Your task to perform on an android device: toggle improve location accuracy Image 0: 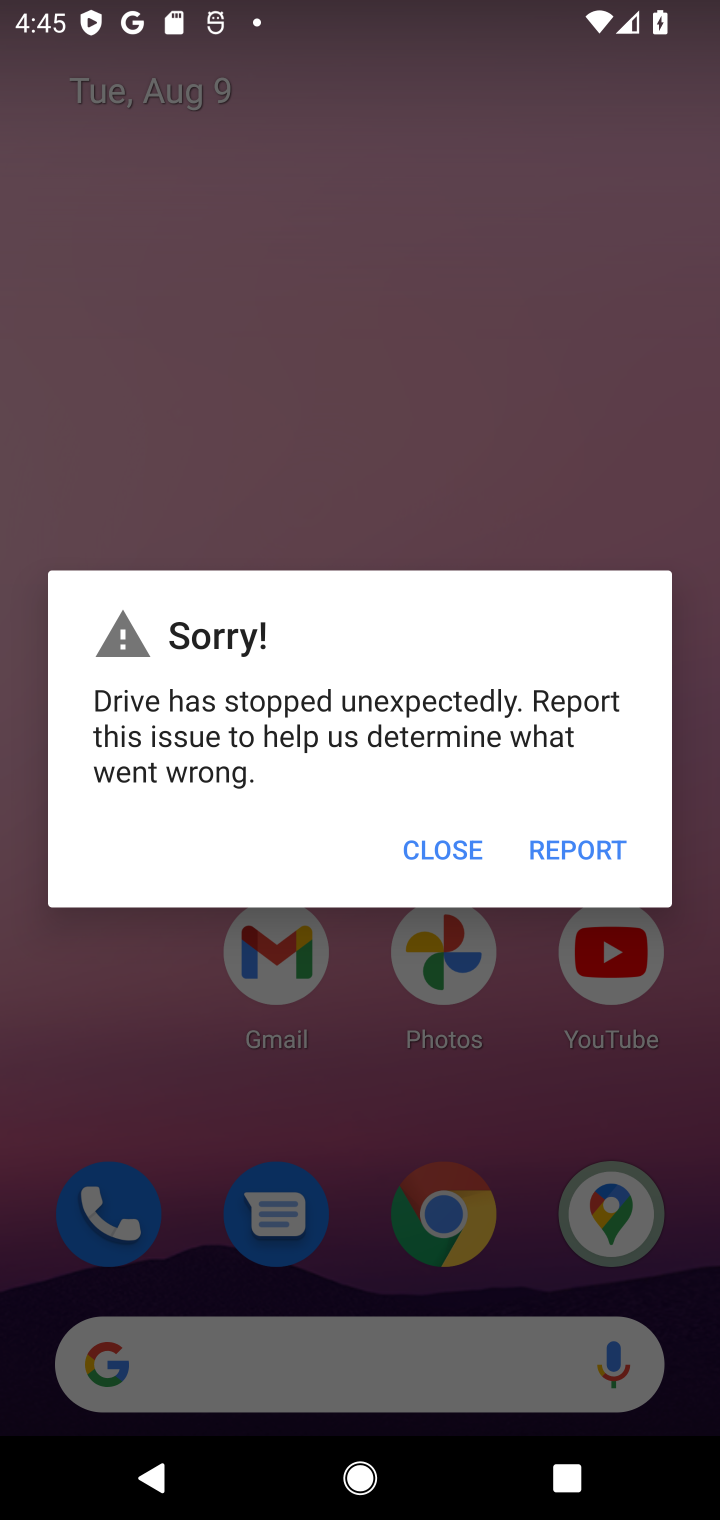
Step 0: press home button
Your task to perform on an android device: toggle improve location accuracy Image 1: 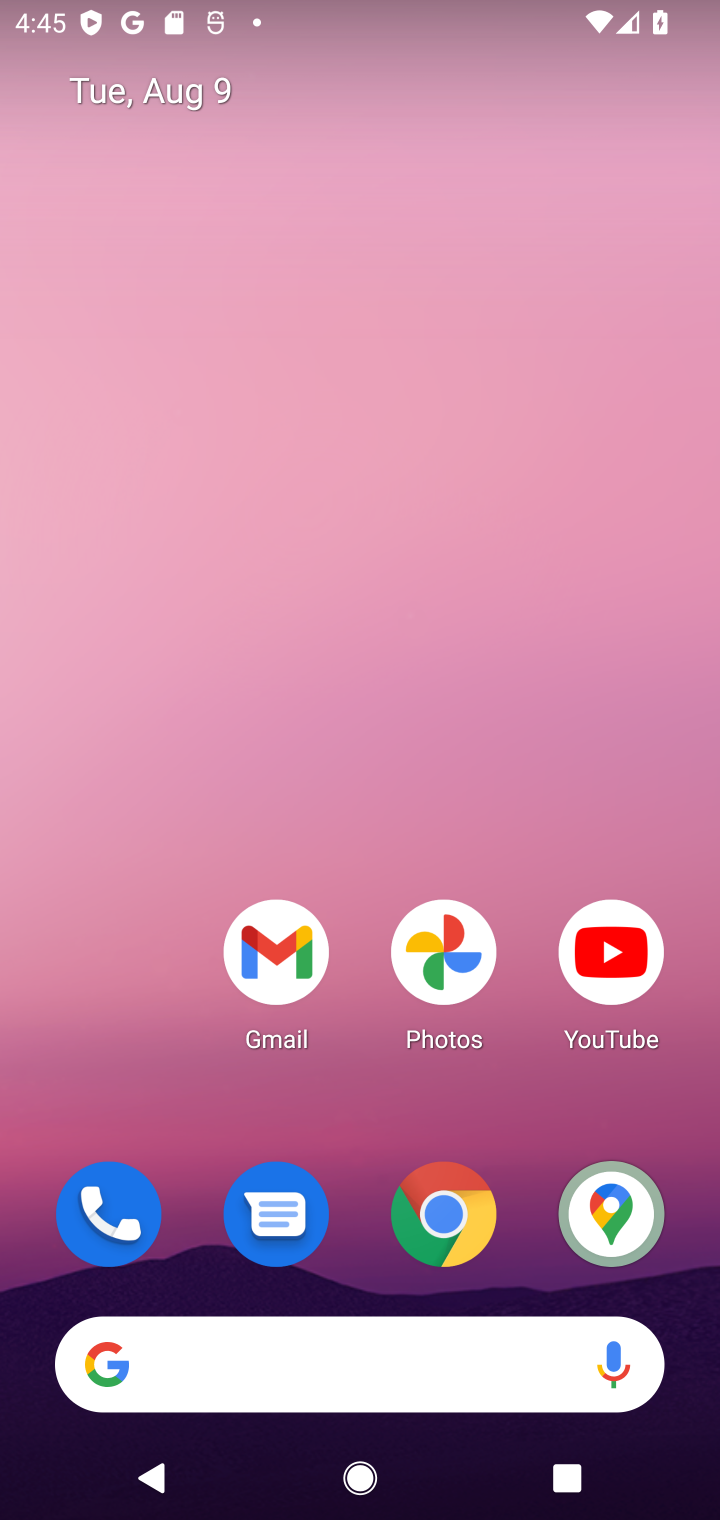
Step 1: drag from (430, 1289) to (341, 376)
Your task to perform on an android device: toggle improve location accuracy Image 2: 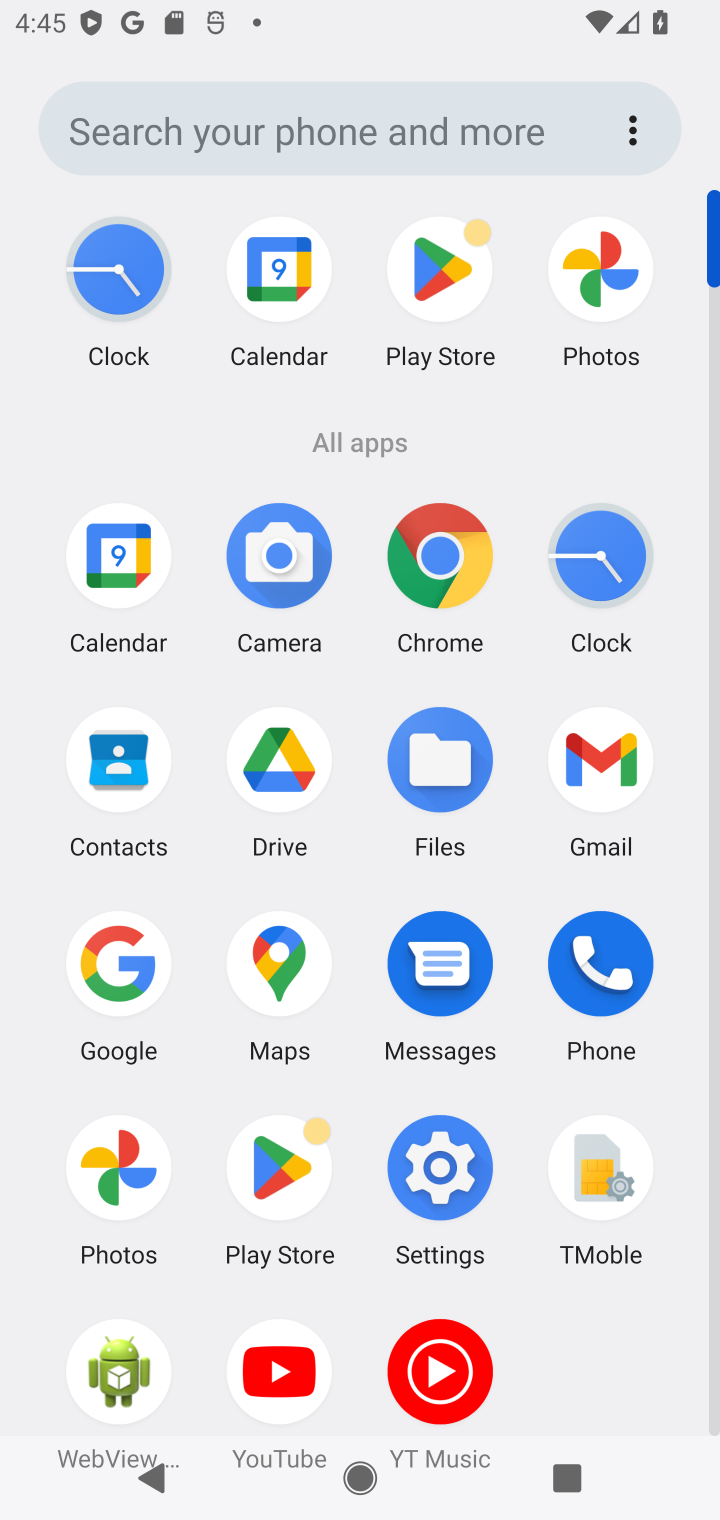
Step 2: click (423, 1164)
Your task to perform on an android device: toggle improve location accuracy Image 3: 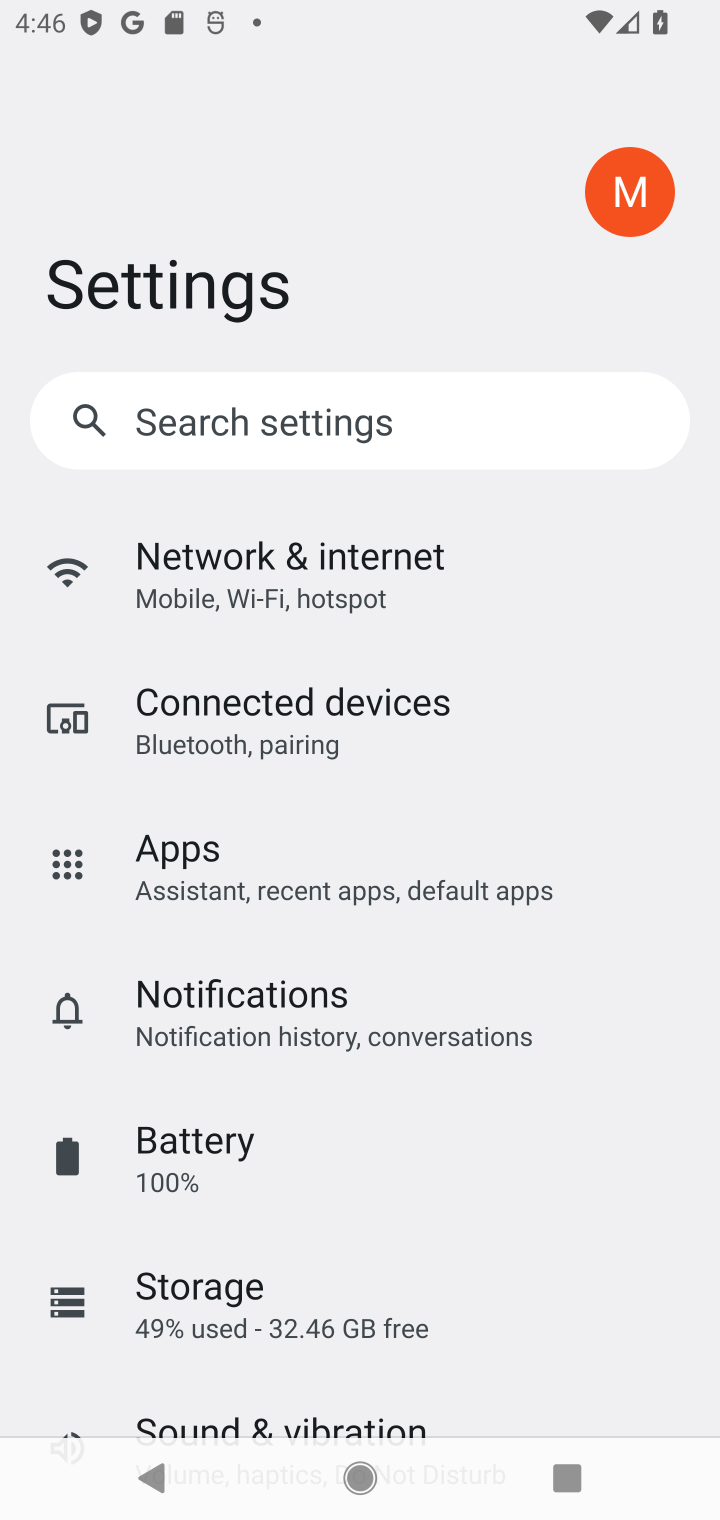
Step 3: click (212, 428)
Your task to perform on an android device: toggle improve location accuracy Image 4: 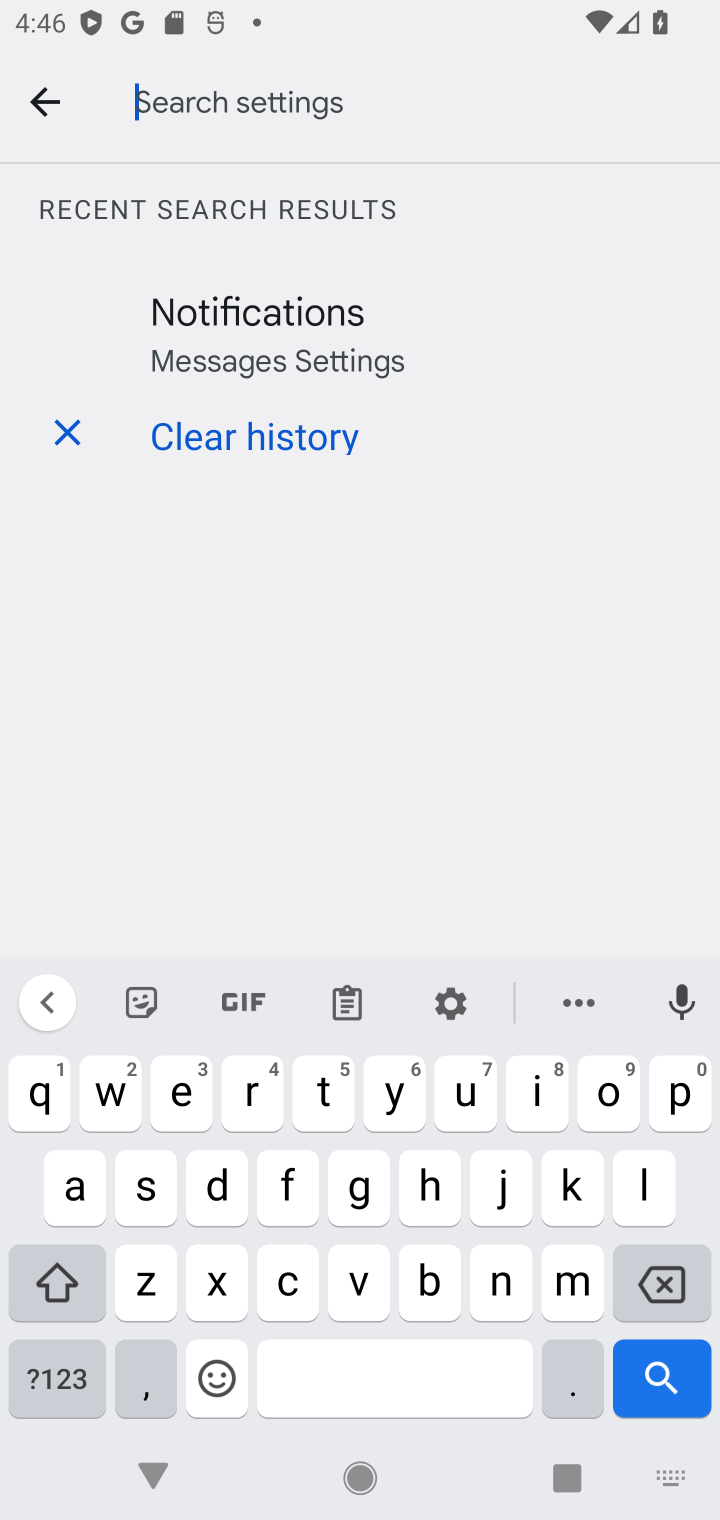
Step 4: click (652, 1187)
Your task to perform on an android device: toggle improve location accuracy Image 5: 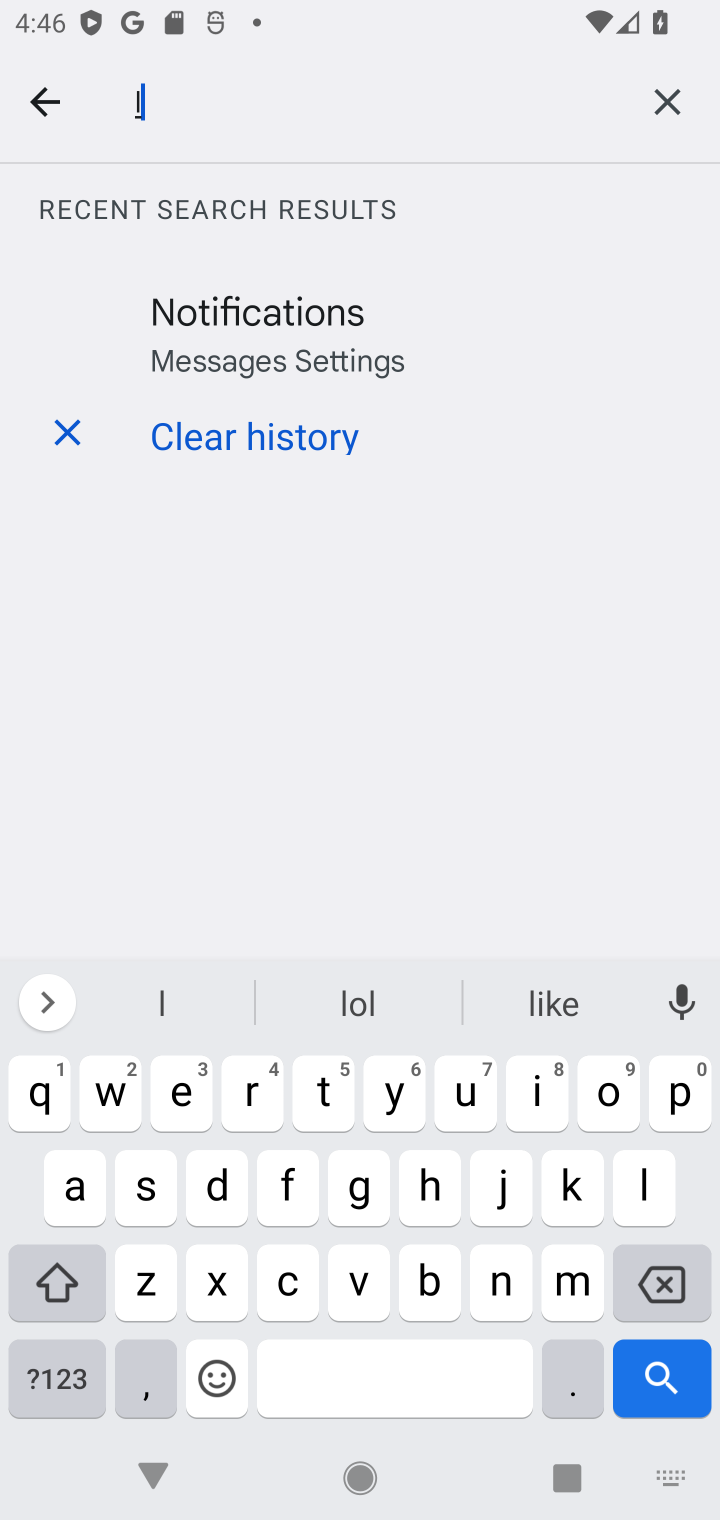
Step 5: click (608, 1099)
Your task to perform on an android device: toggle improve location accuracy Image 6: 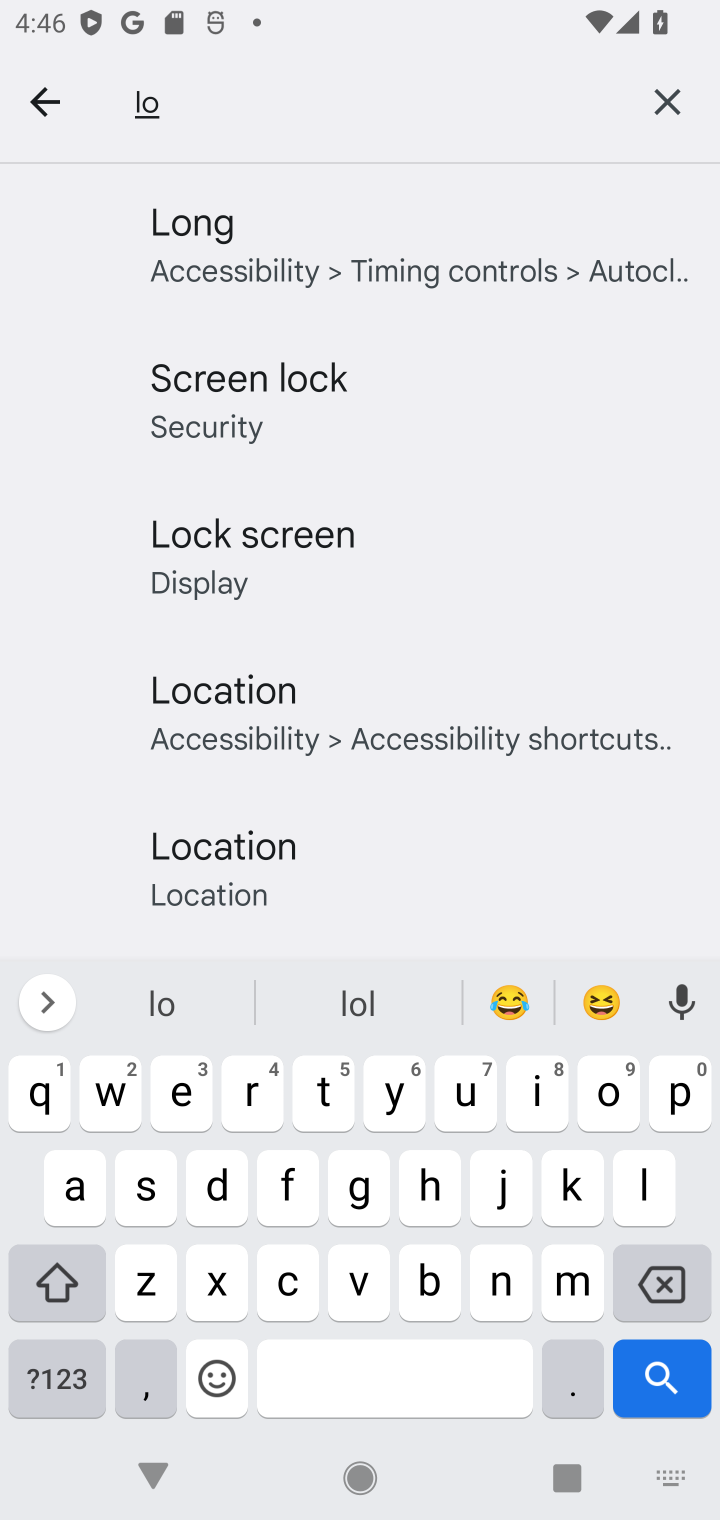
Step 6: click (228, 867)
Your task to perform on an android device: toggle improve location accuracy Image 7: 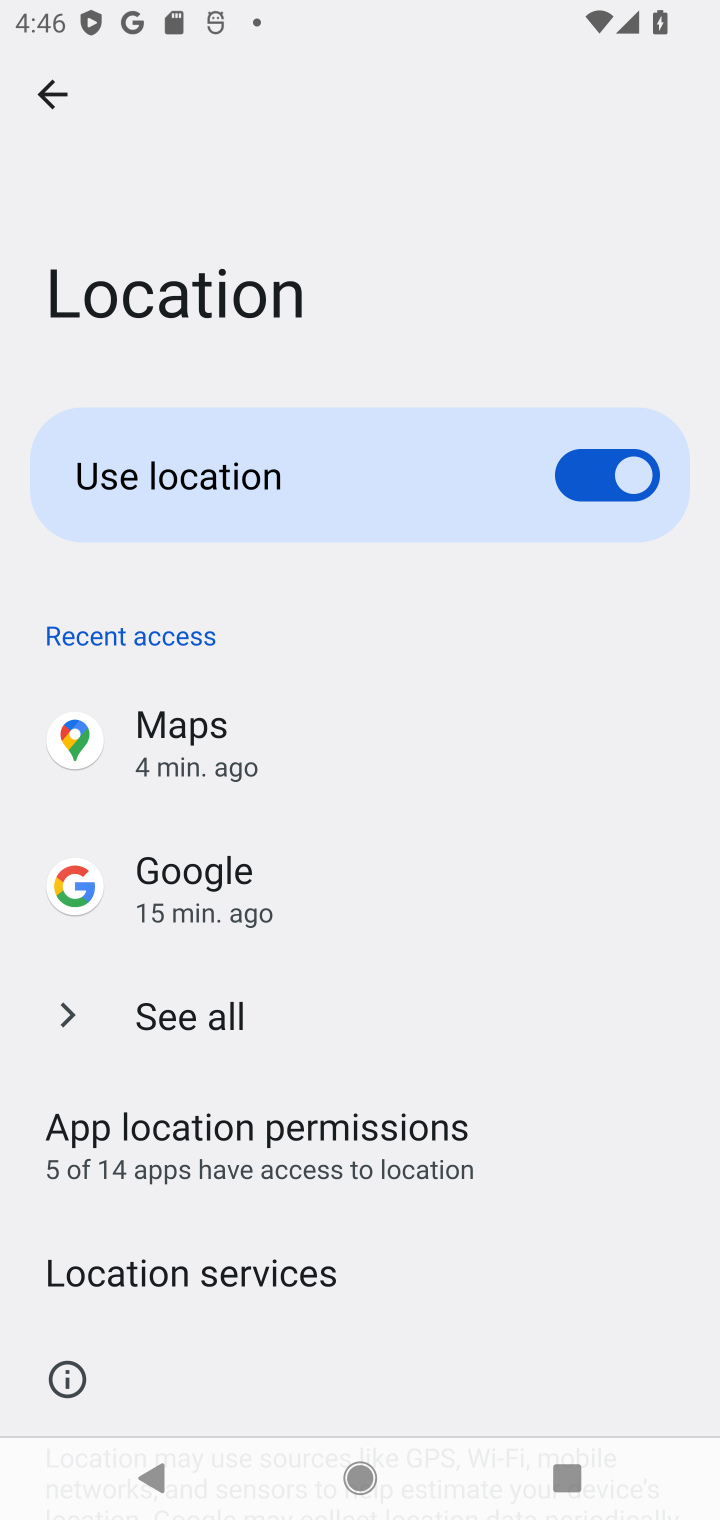
Step 7: click (226, 1285)
Your task to perform on an android device: toggle improve location accuracy Image 8: 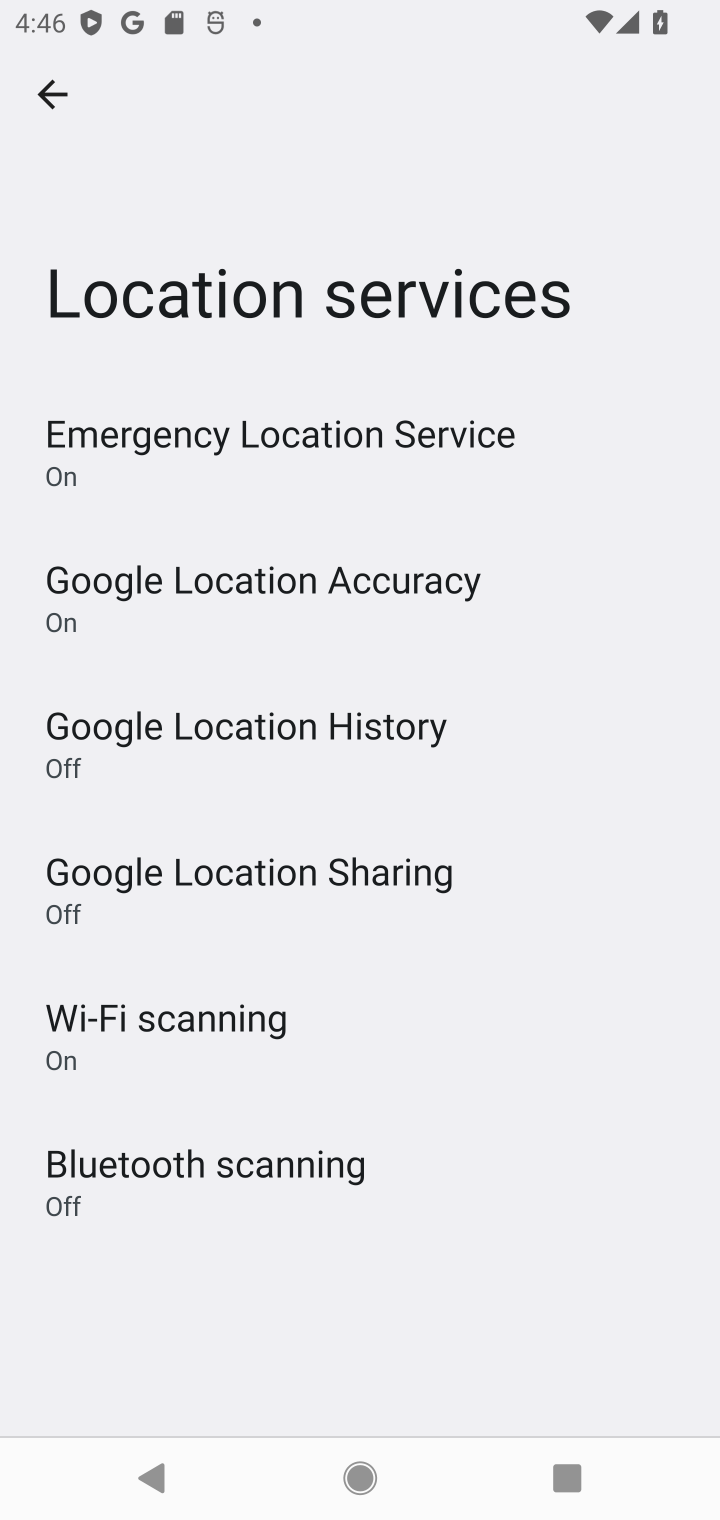
Step 8: click (301, 574)
Your task to perform on an android device: toggle improve location accuracy Image 9: 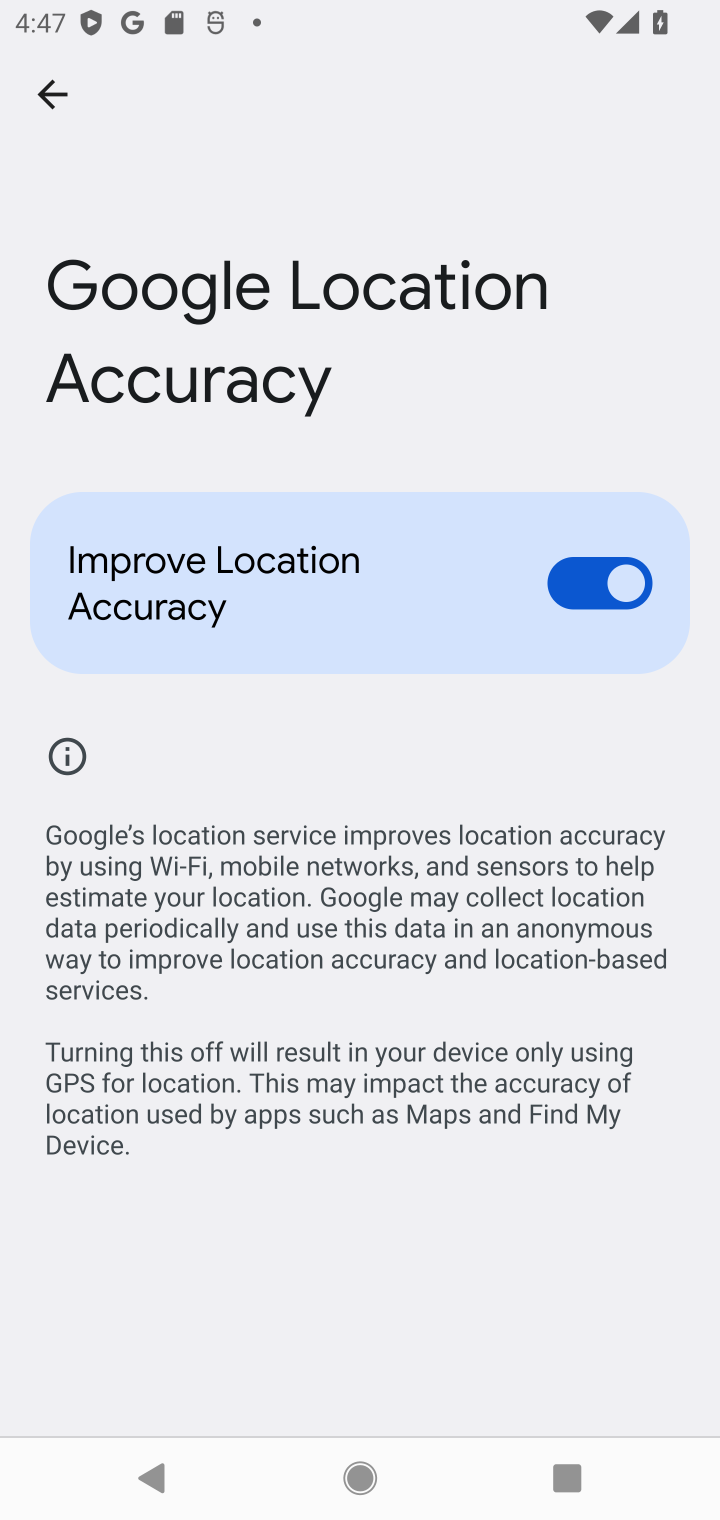
Step 9: task complete